Your task to perform on an android device: Open sound settings Image 0: 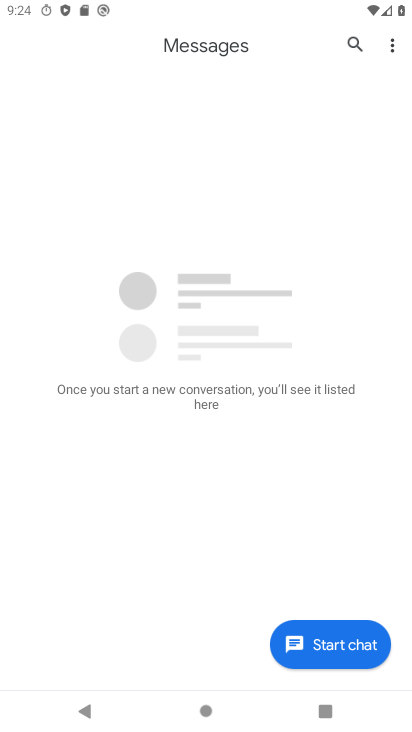
Step 0: press back button
Your task to perform on an android device: Open sound settings Image 1: 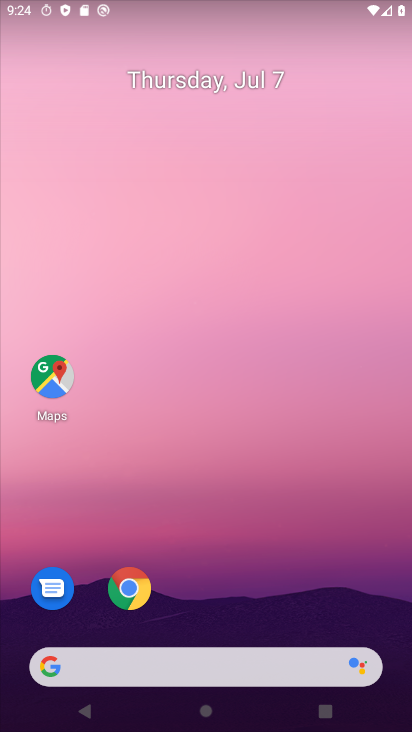
Step 1: drag from (165, 477) to (123, 144)
Your task to perform on an android device: Open sound settings Image 2: 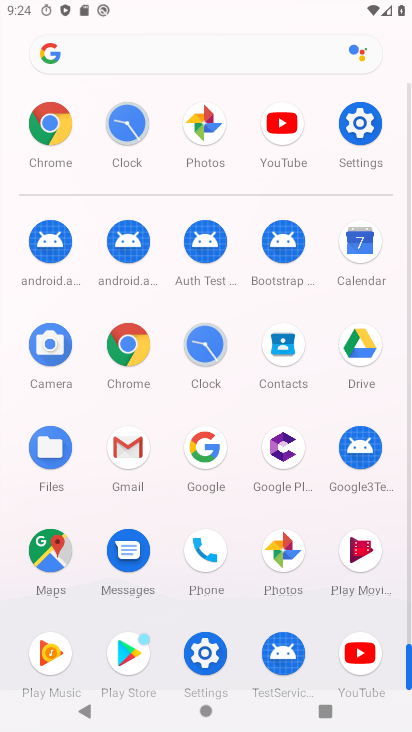
Step 2: click (360, 128)
Your task to perform on an android device: Open sound settings Image 3: 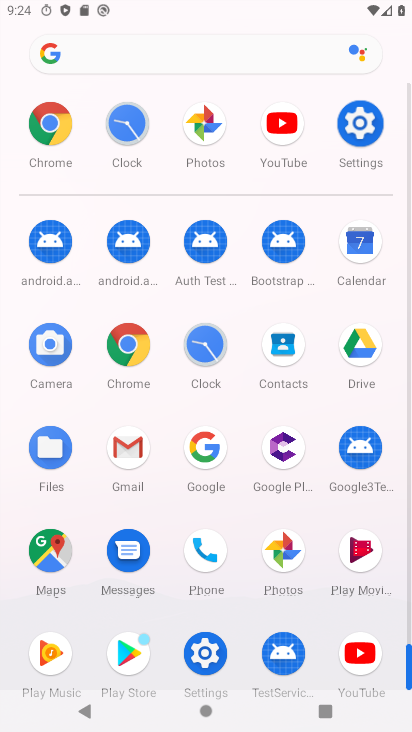
Step 3: click (359, 126)
Your task to perform on an android device: Open sound settings Image 4: 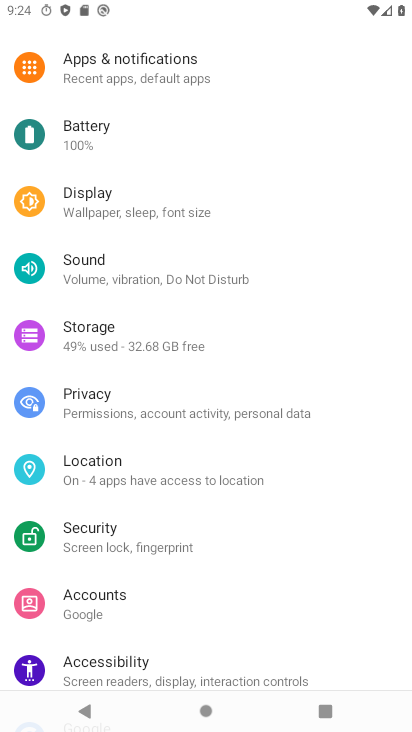
Step 4: drag from (122, 464) to (82, 172)
Your task to perform on an android device: Open sound settings Image 5: 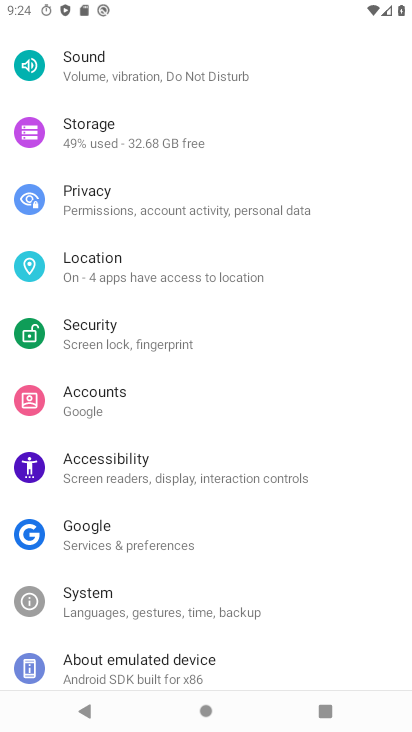
Step 5: click (102, 58)
Your task to perform on an android device: Open sound settings Image 6: 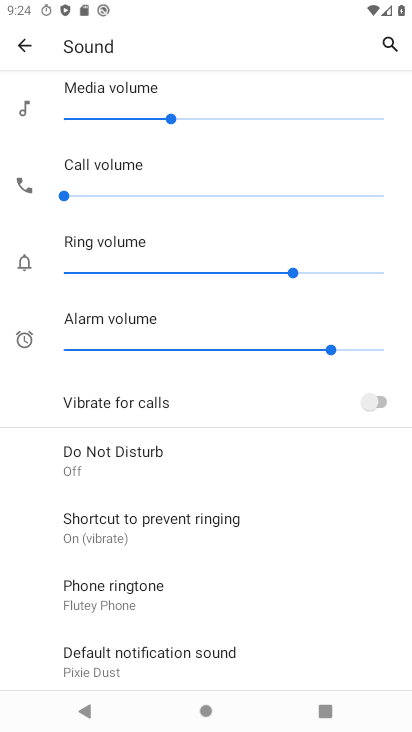
Step 6: click (22, 42)
Your task to perform on an android device: Open sound settings Image 7: 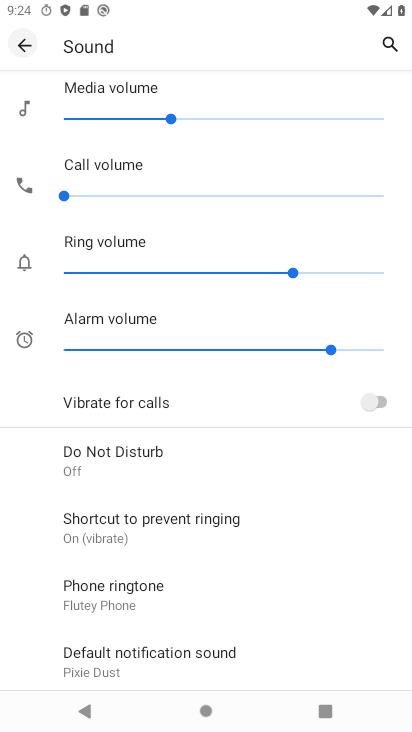
Step 7: click (22, 41)
Your task to perform on an android device: Open sound settings Image 8: 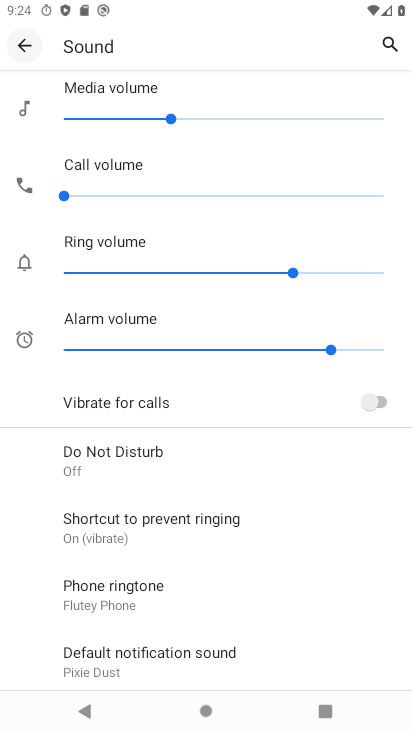
Step 8: click (22, 41)
Your task to perform on an android device: Open sound settings Image 9: 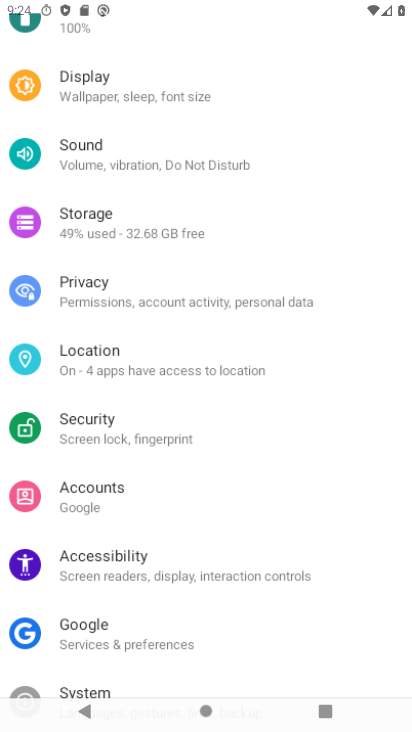
Step 9: click (23, 42)
Your task to perform on an android device: Open sound settings Image 10: 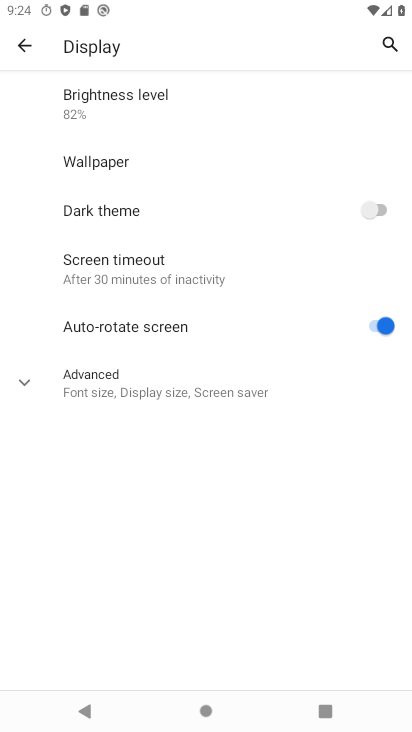
Step 10: click (20, 43)
Your task to perform on an android device: Open sound settings Image 11: 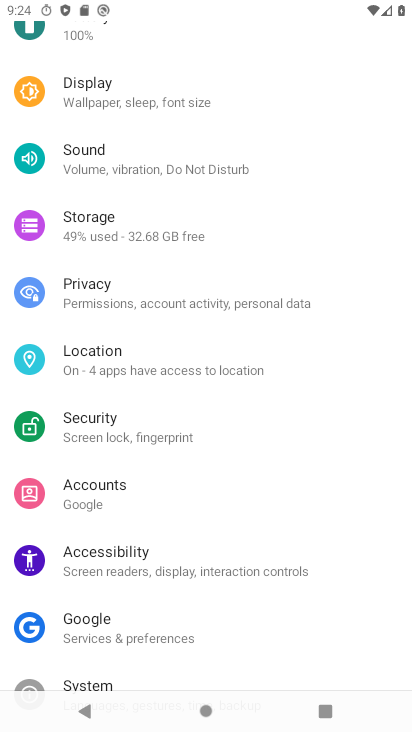
Step 11: click (76, 163)
Your task to perform on an android device: Open sound settings Image 12: 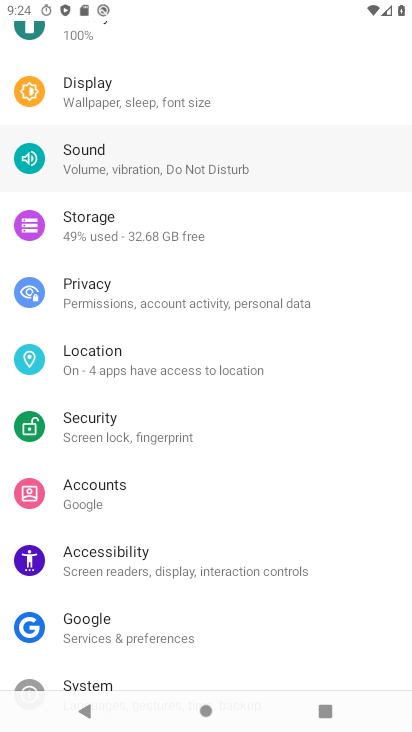
Step 12: click (77, 163)
Your task to perform on an android device: Open sound settings Image 13: 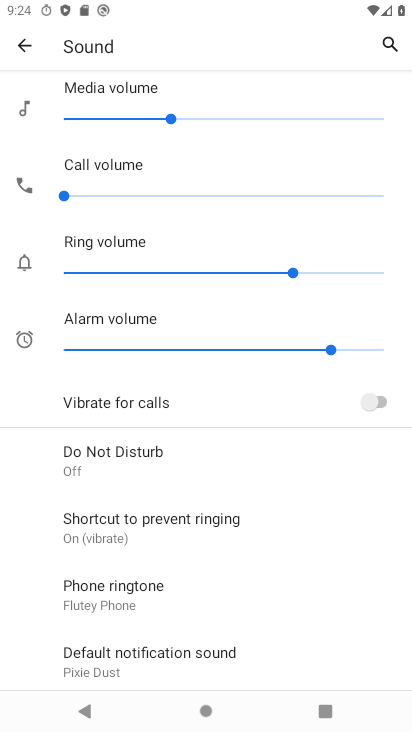
Step 13: task complete